Your task to perform on an android device: Open Google Chrome and open the bookmarks view Image 0: 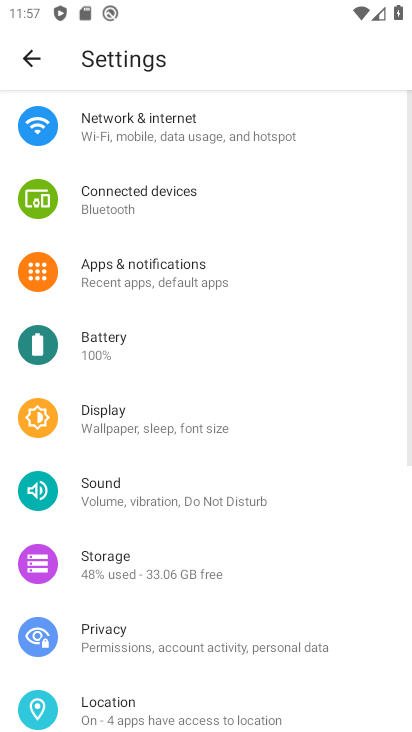
Step 0: press home button
Your task to perform on an android device: Open Google Chrome and open the bookmarks view Image 1: 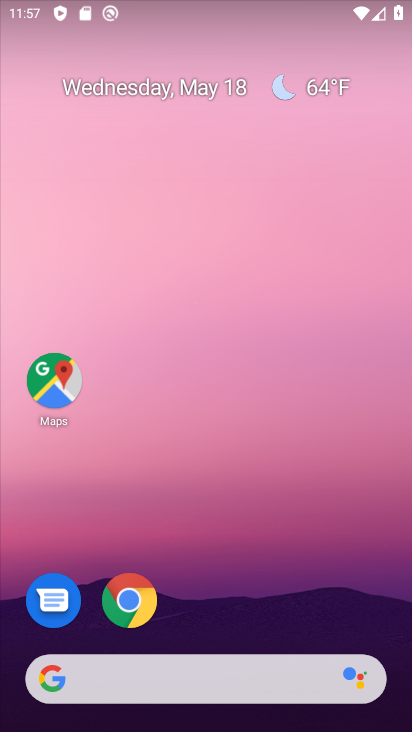
Step 1: click (138, 602)
Your task to perform on an android device: Open Google Chrome and open the bookmarks view Image 2: 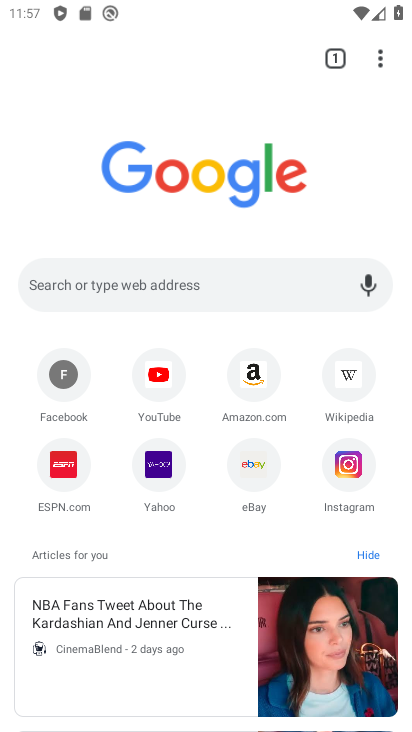
Step 2: click (382, 68)
Your task to perform on an android device: Open Google Chrome and open the bookmarks view Image 3: 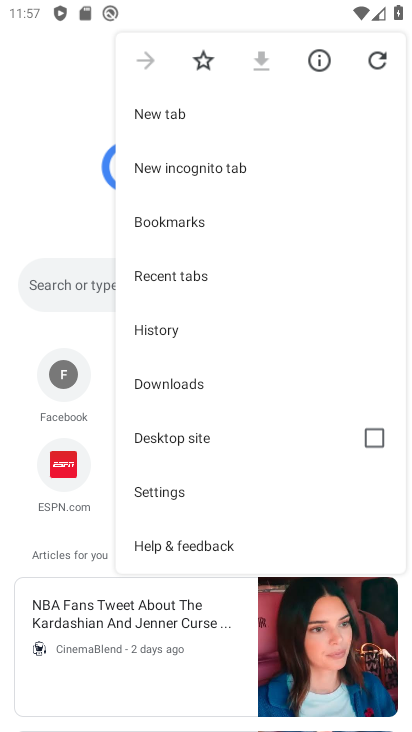
Step 3: click (180, 498)
Your task to perform on an android device: Open Google Chrome and open the bookmarks view Image 4: 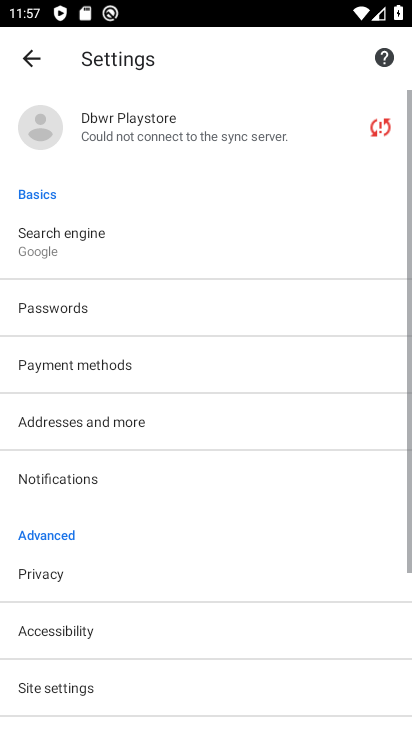
Step 4: drag from (180, 497) to (139, 207)
Your task to perform on an android device: Open Google Chrome and open the bookmarks view Image 5: 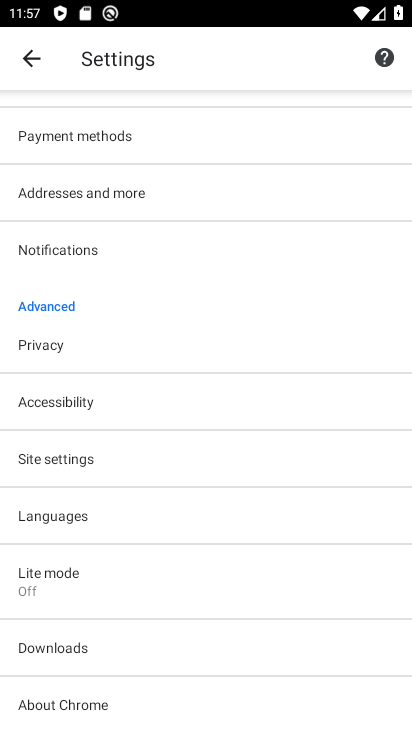
Step 5: drag from (137, 213) to (137, 443)
Your task to perform on an android device: Open Google Chrome and open the bookmarks view Image 6: 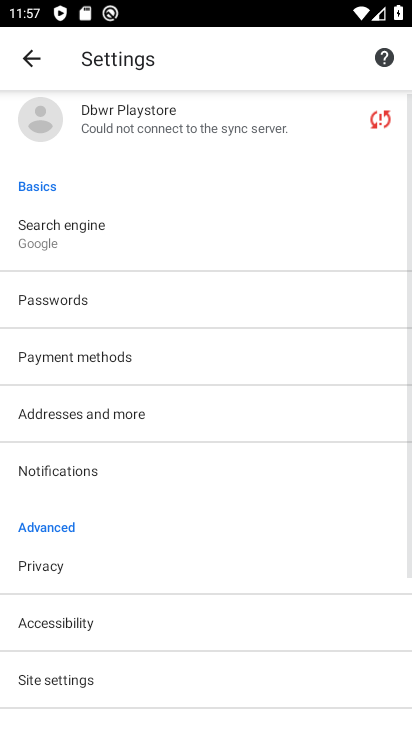
Step 6: drag from (99, 220) to (106, 416)
Your task to perform on an android device: Open Google Chrome and open the bookmarks view Image 7: 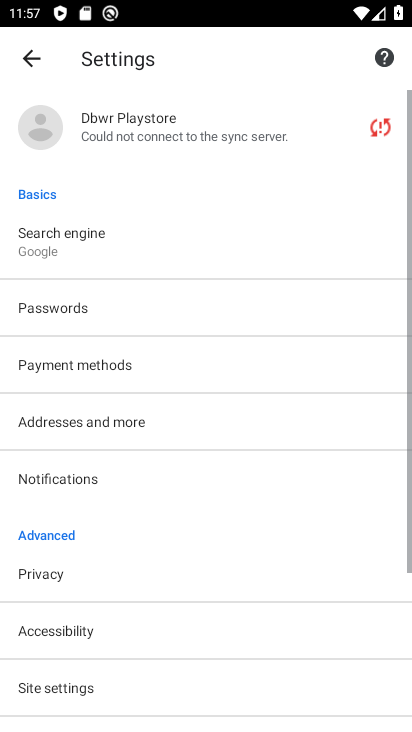
Step 7: click (21, 69)
Your task to perform on an android device: Open Google Chrome and open the bookmarks view Image 8: 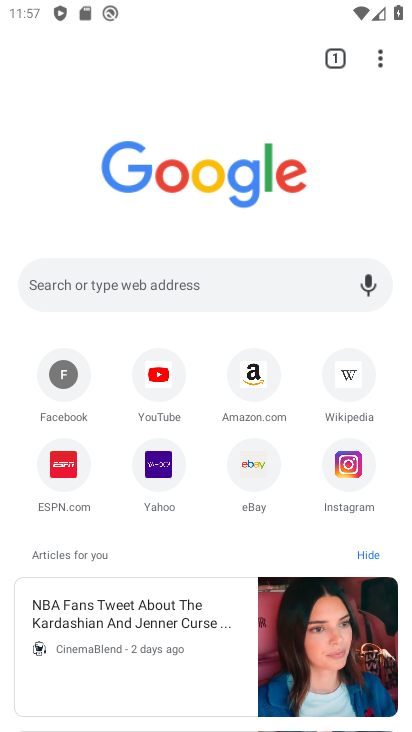
Step 8: click (382, 59)
Your task to perform on an android device: Open Google Chrome and open the bookmarks view Image 9: 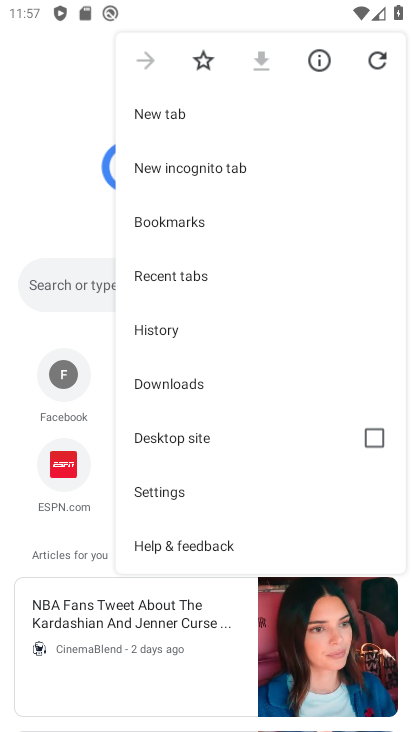
Step 9: click (196, 215)
Your task to perform on an android device: Open Google Chrome and open the bookmarks view Image 10: 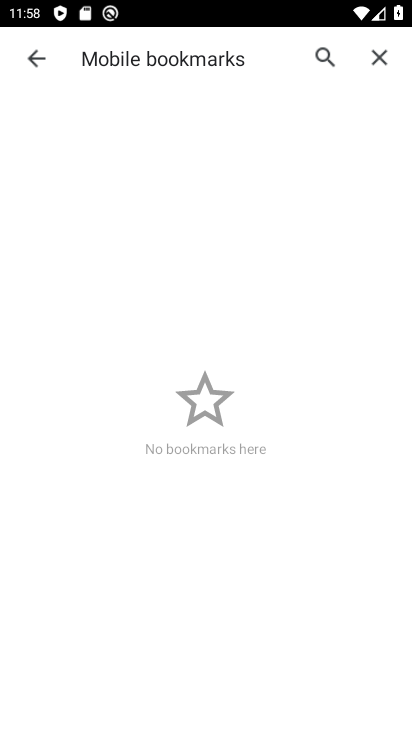
Step 10: task complete